Your task to perform on an android device: change notifications settings Image 0: 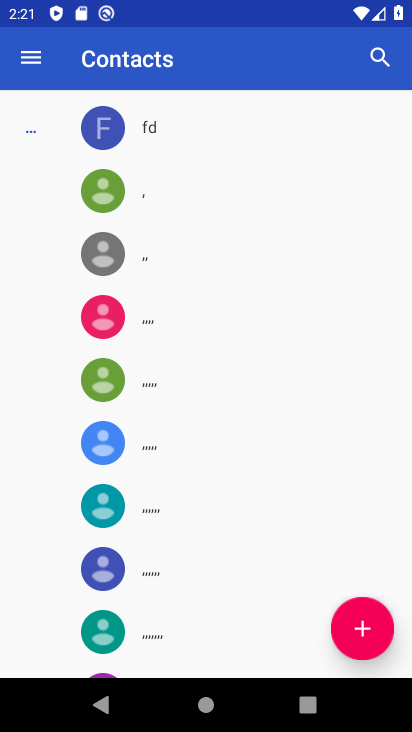
Step 0: press home button
Your task to perform on an android device: change notifications settings Image 1: 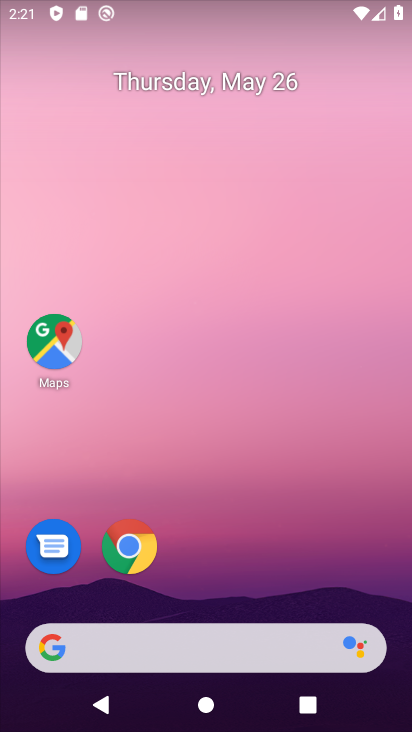
Step 1: drag from (393, 690) to (390, 283)
Your task to perform on an android device: change notifications settings Image 2: 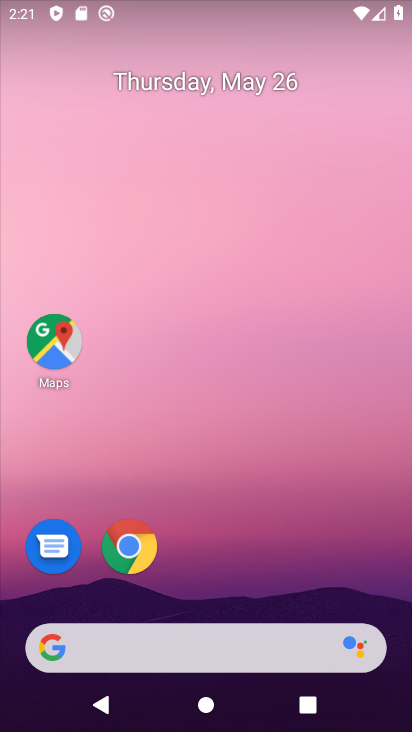
Step 2: drag from (404, 667) to (397, 122)
Your task to perform on an android device: change notifications settings Image 3: 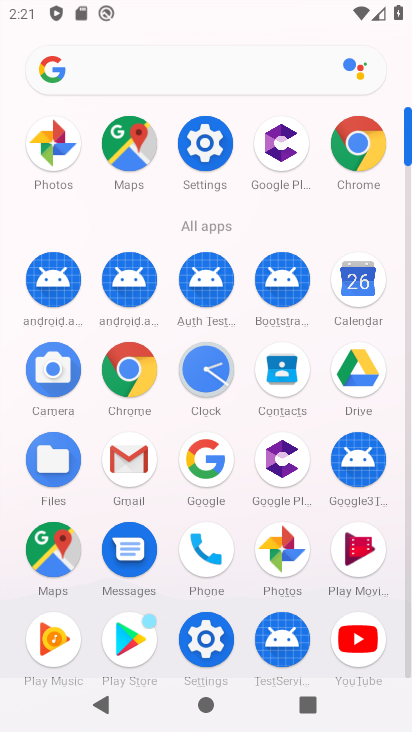
Step 3: click (196, 640)
Your task to perform on an android device: change notifications settings Image 4: 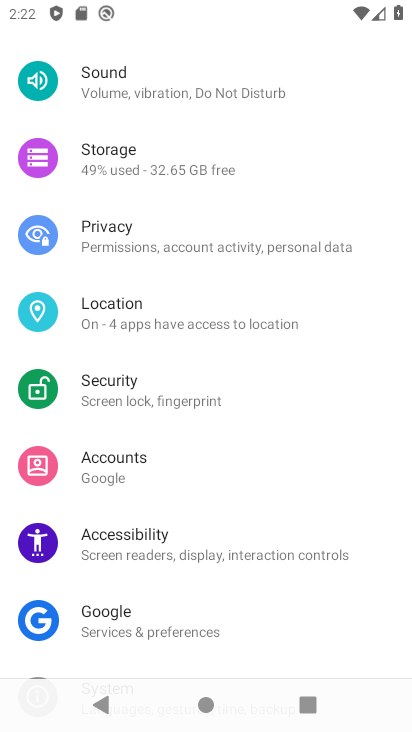
Step 4: drag from (342, 76) to (315, 573)
Your task to perform on an android device: change notifications settings Image 5: 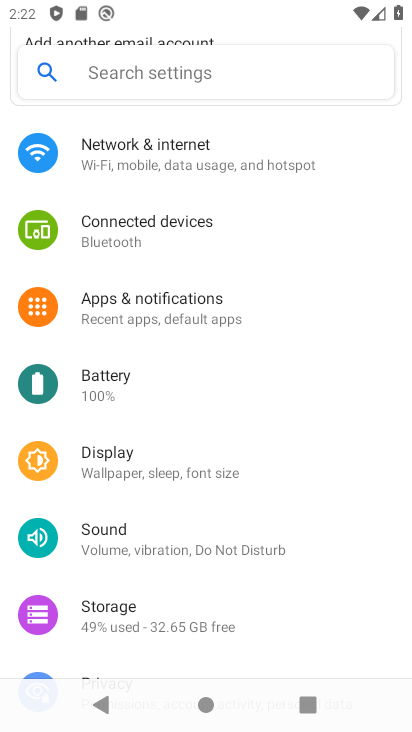
Step 5: drag from (367, 173) to (369, 516)
Your task to perform on an android device: change notifications settings Image 6: 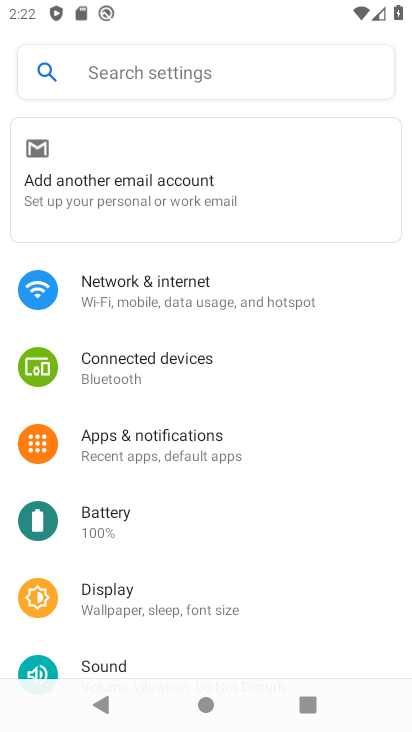
Step 6: click (139, 447)
Your task to perform on an android device: change notifications settings Image 7: 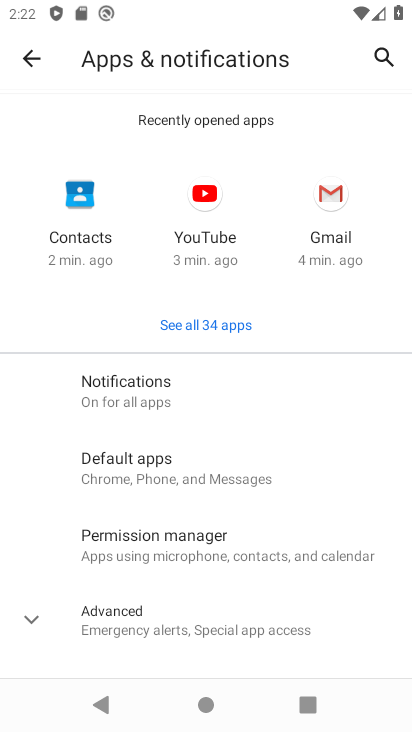
Step 7: click (104, 398)
Your task to perform on an android device: change notifications settings Image 8: 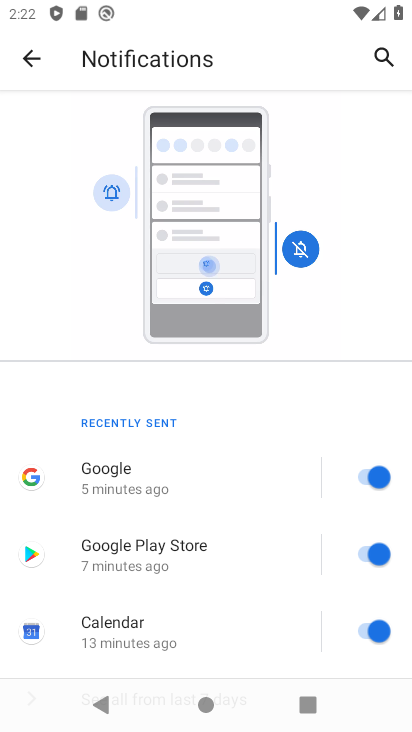
Step 8: task complete